Your task to perform on an android device: move an email to a new category in the gmail app Image 0: 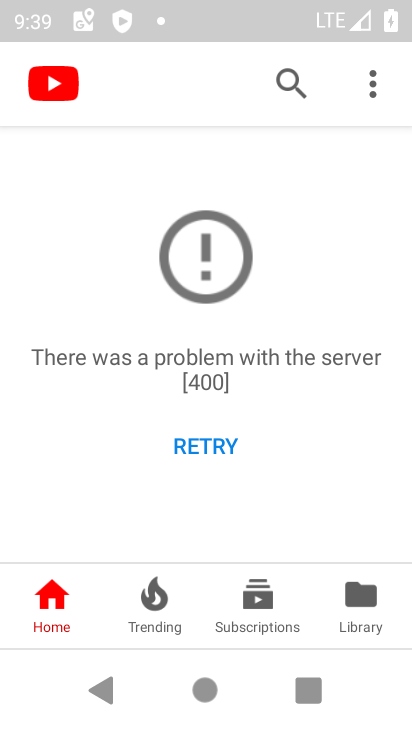
Step 0: press home button
Your task to perform on an android device: move an email to a new category in the gmail app Image 1: 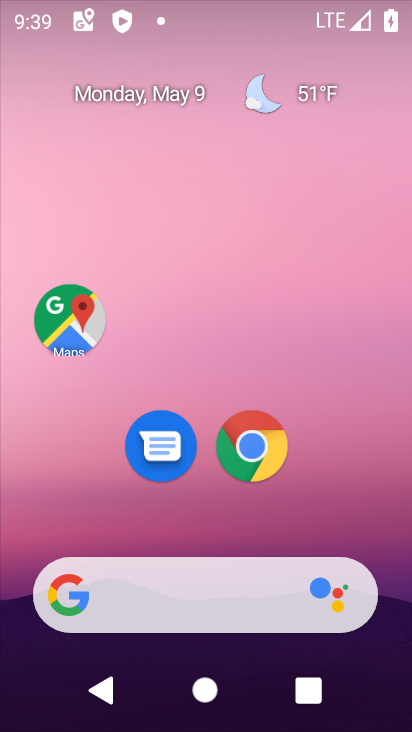
Step 1: drag from (287, 522) to (330, 61)
Your task to perform on an android device: move an email to a new category in the gmail app Image 2: 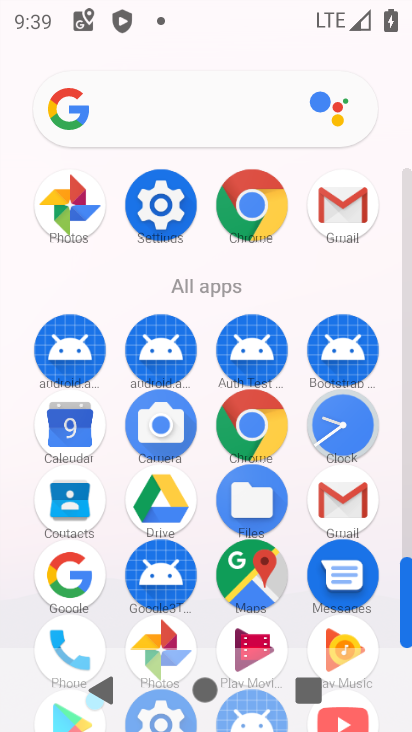
Step 2: click (345, 218)
Your task to perform on an android device: move an email to a new category in the gmail app Image 3: 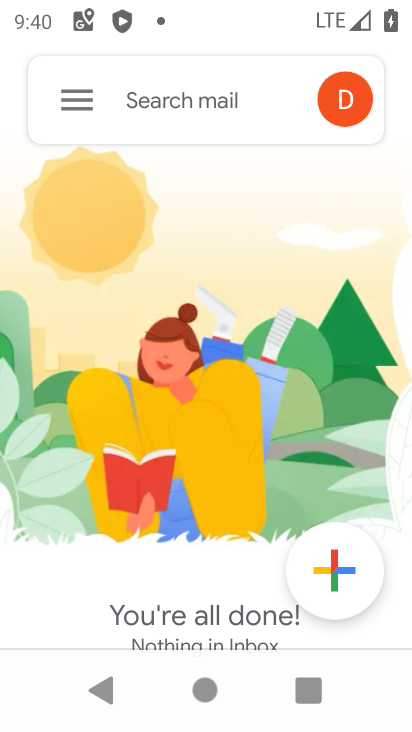
Step 3: click (71, 97)
Your task to perform on an android device: move an email to a new category in the gmail app Image 4: 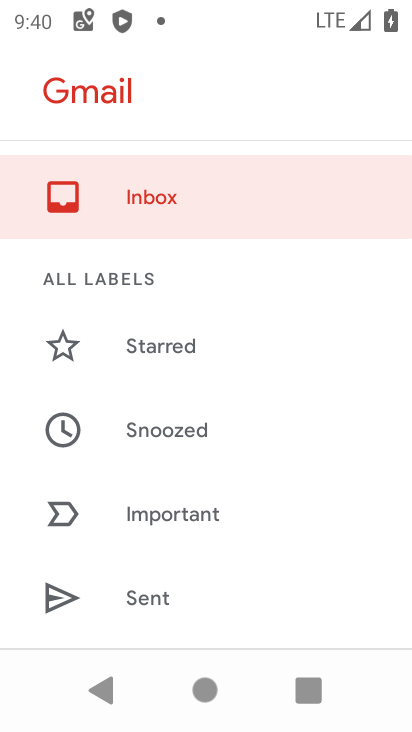
Step 4: drag from (247, 469) to (275, 190)
Your task to perform on an android device: move an email to a new category in the gmail app Image 5: 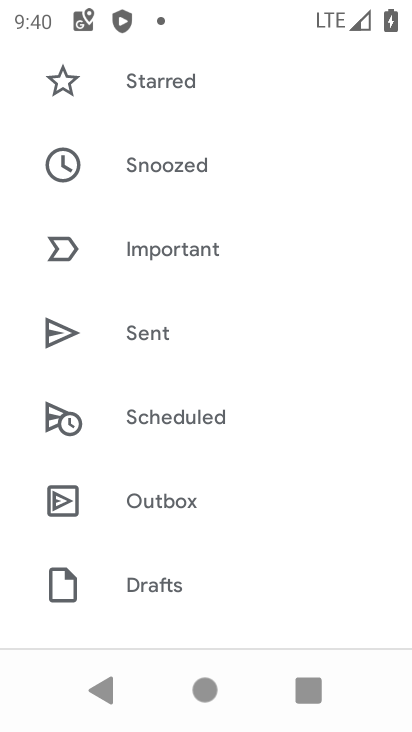
Step 5: drag from (260, 499) to (271, 186)
Your task to perform on an android device: move an email to a new category in the gmail app Image 6: 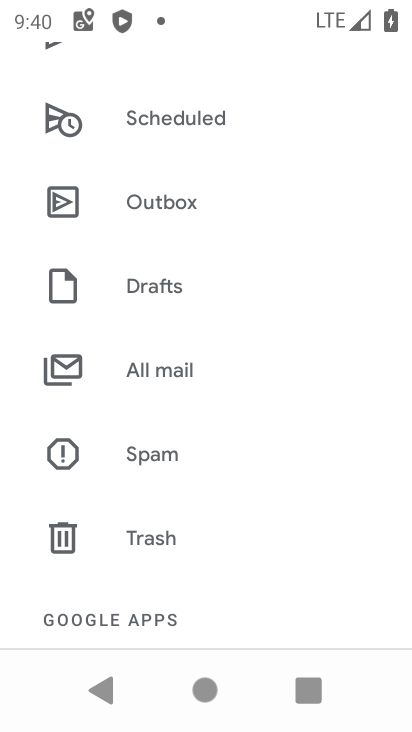
Step 6: drag from (220, 483) to (256, 160)
Your task to perform on an android device: move an email to a new category in the gmail app Image 7: 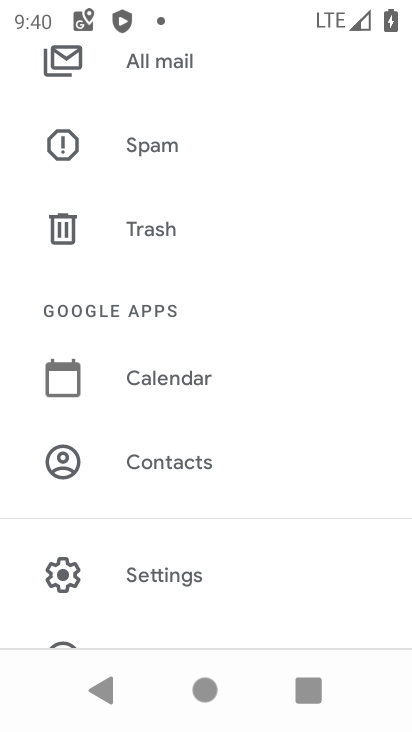
Step 7: click (176, 69)
Your task to perform on an android device: move an email to a new category in the gmail app Image 8: 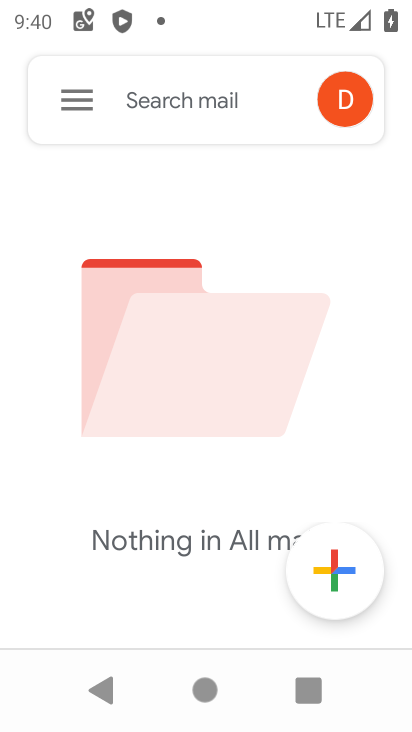
Step 8: task complete